Your task to perform on an android device: Open Wikipedia Image 0: 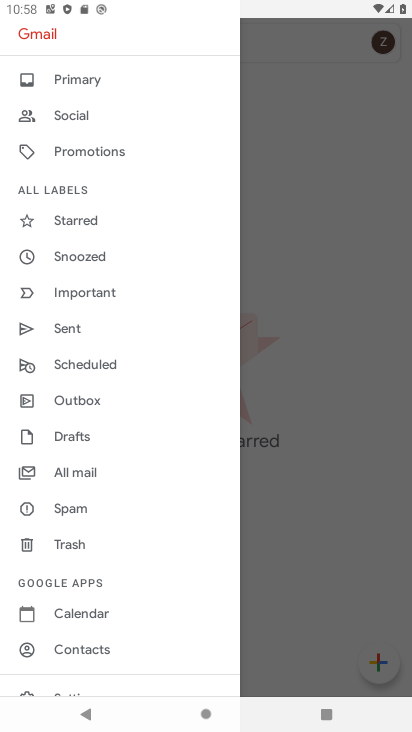
Step 0: press home button
Your task to perform on an android device: Open Wikipedia Image 1: 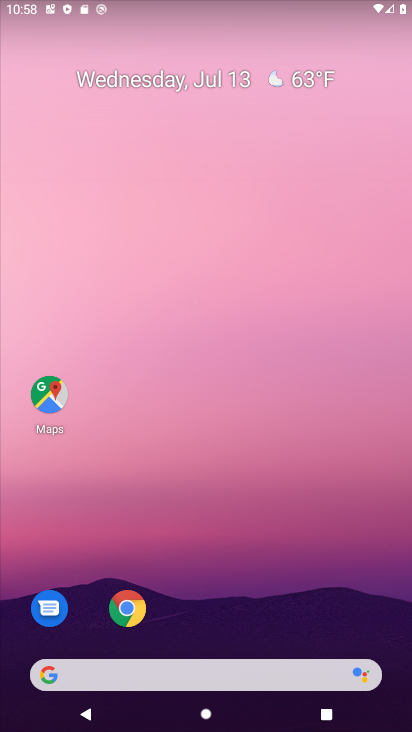
Step 1: click (235, 671)
Your task to perform on an android device: Open Wikipedia Image 2: 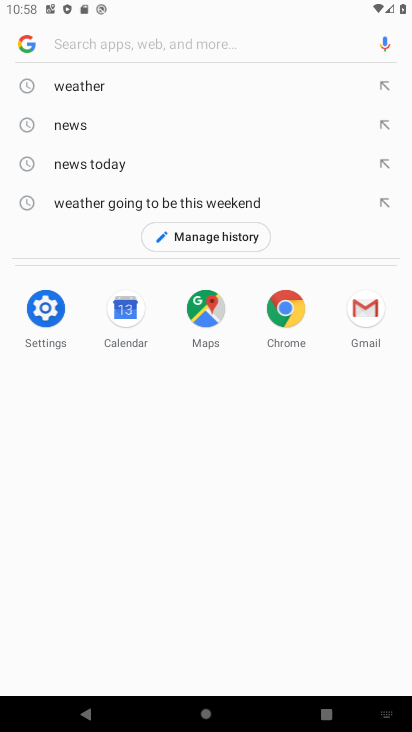
Step 2: type "Wikipedia"
Your task to perform on an android device: Open Wikipedia Image 3: 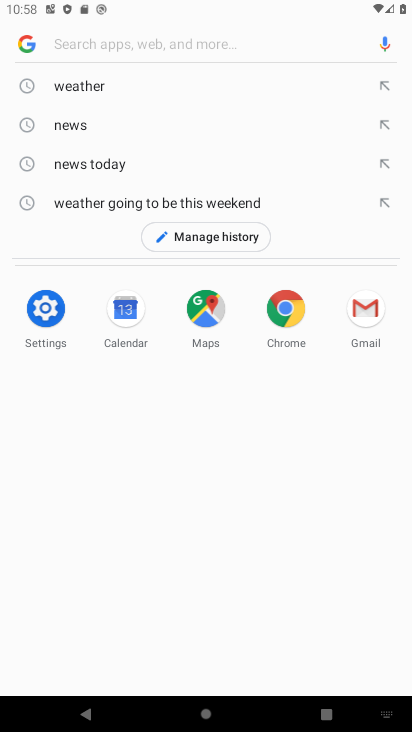
Step 3: click (76, 38)
Your task to perform on an android device: Open Wikipedia Image 4: 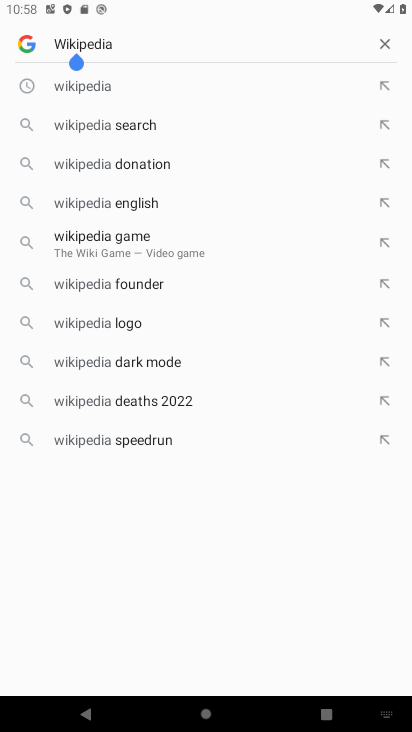
Step 4: click (87, 87)
Your task to perform on an android device: Open Wikipedia Image 5: 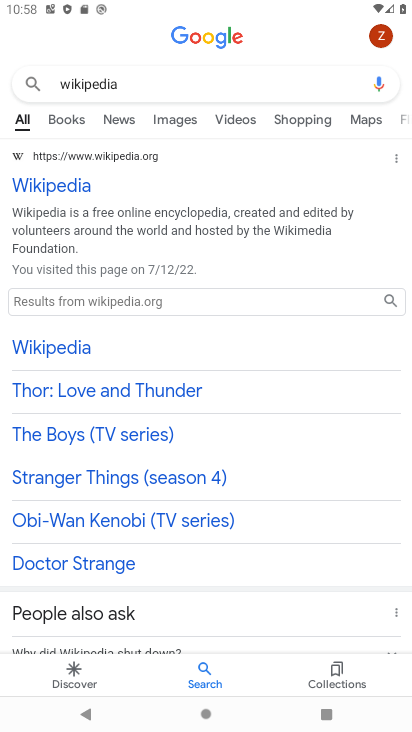
Step 5: click (54, 183)
Your task to perform on an android device: Open Wikipedia Image 6: 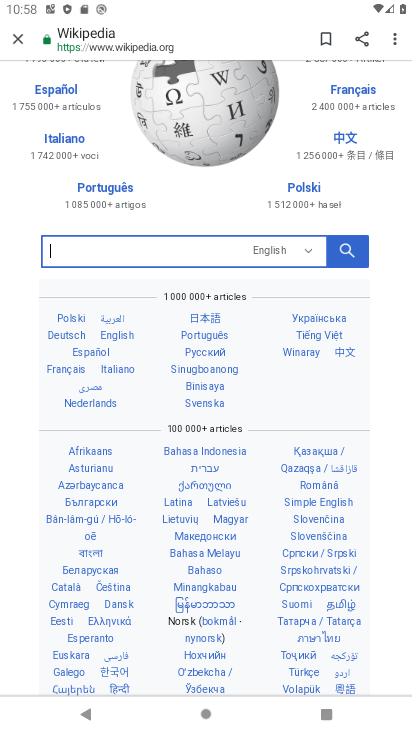
Step 6: task complete